Your task to perform on an android device: clear history in the chrome app Image 0: 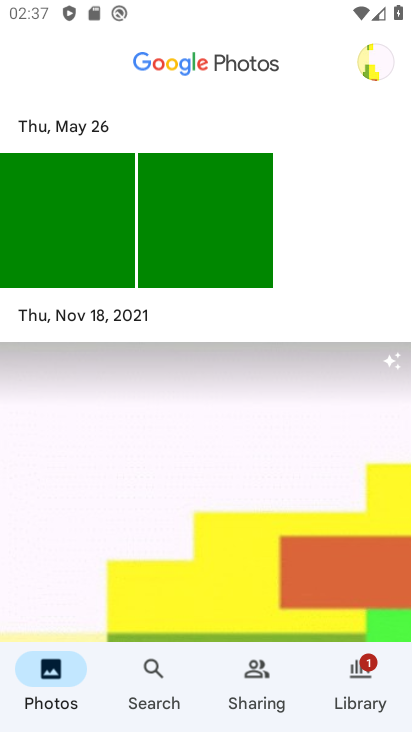
Step 0: press home button
Your task to perform on an android device: clear history in the chrome app Image 1: 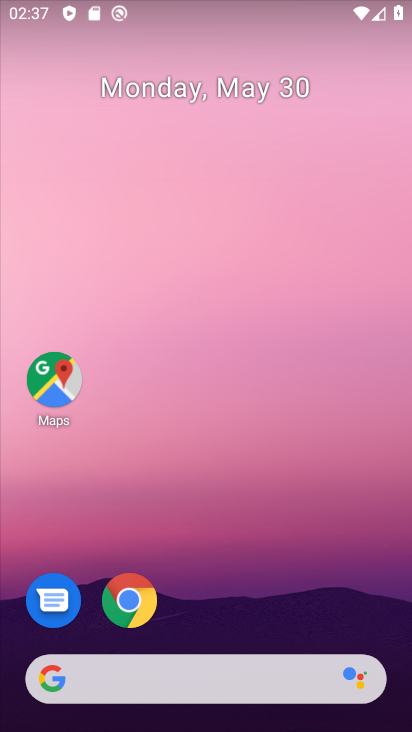
Step 1: click (134, 604)
Your task to perform on an android device: clear history in the chrome app Image 2: 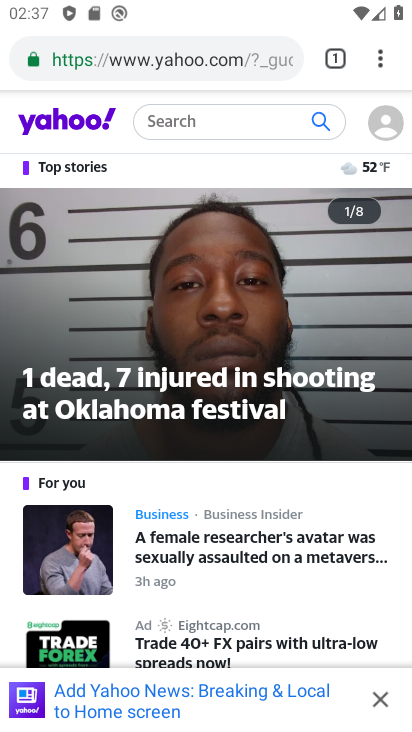
Step 2: click (389, 55)
Your task to perform on an android device: clear history in the chrome app Image 3: 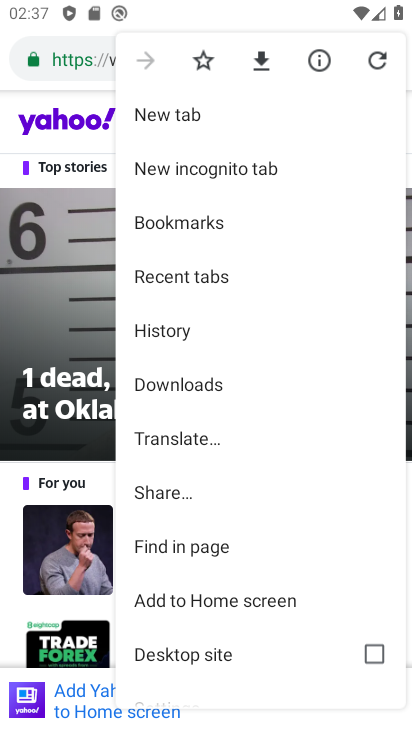
Step 3: click (183, 328)
Your task to perform on an android device: clear history in the chrome app Image 4: 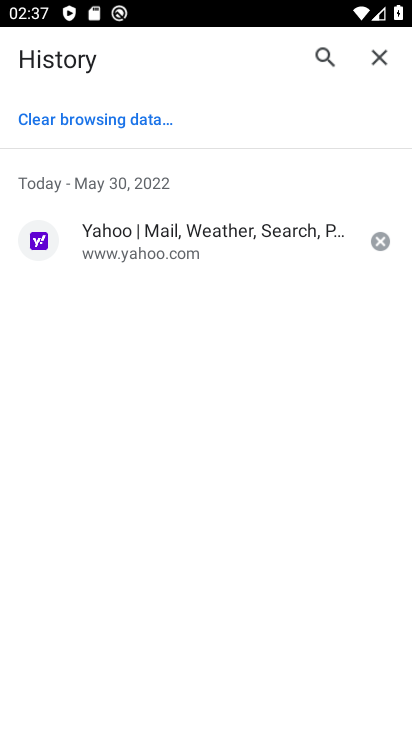
Step 4: click (153, 121)
Your task to perform on an android device: clear history in the chrome app Image 5: 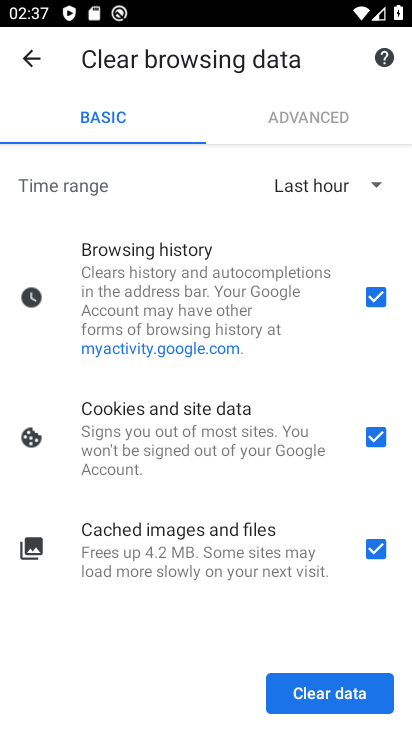
Step 5: click (350, 182)
Your task to perform on an android device: clear history in the chrome app Image 6: 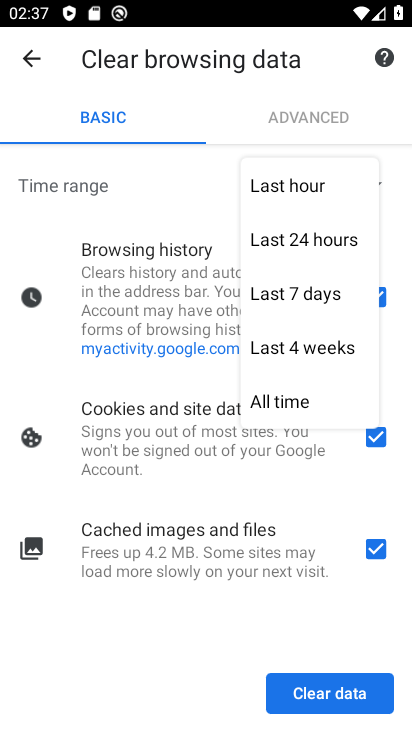
Step 6: click (307, 393)
Your task to perform on an android device: clear history in the chrome app Image 7: 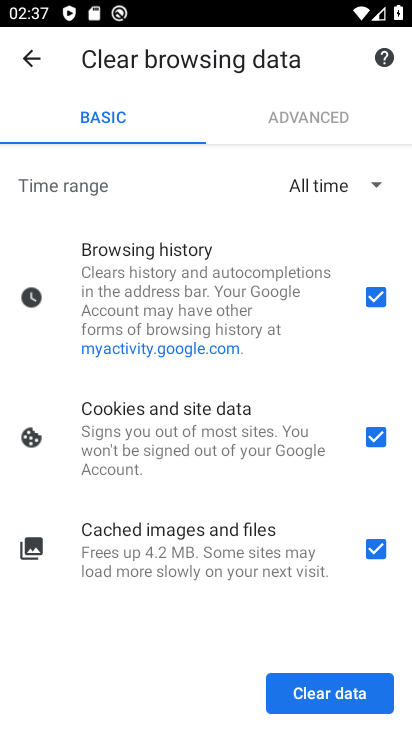
Step 7: click (327, 688)
Your task to perform on an android device: clear history in the chrome app Image 8: 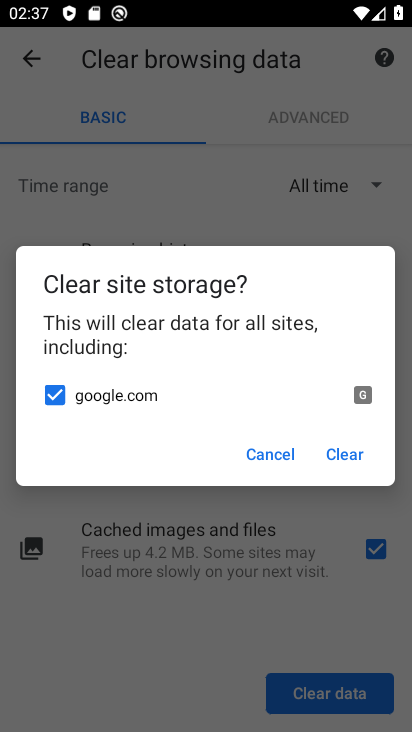
Step 8: click (351, 456)
Your task to perform on an android device: clear history in the chrome app Image 9: 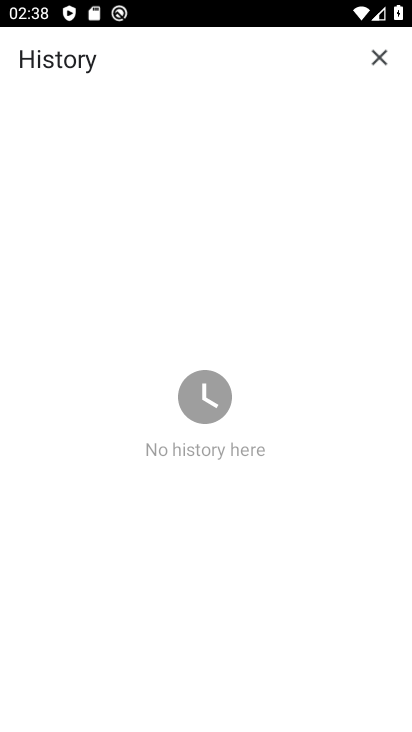
Step 9: task complete